Your task to perform on an android device: Open Google Maps Image 0: 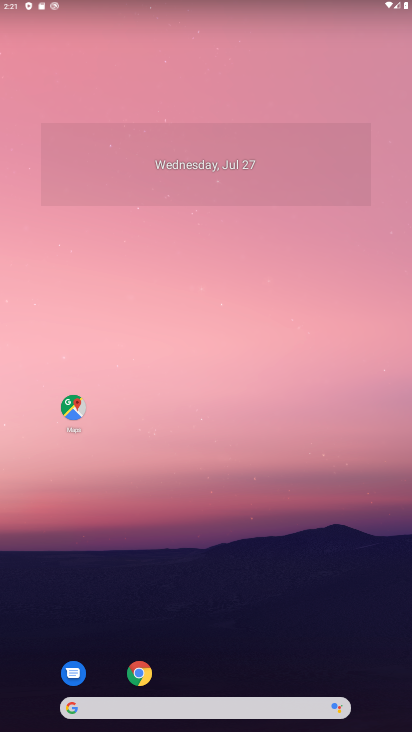
Step 0: drag from (241, 660) to (272, 244)
Your task to perform on an android device: Open Google Maps Image 1: 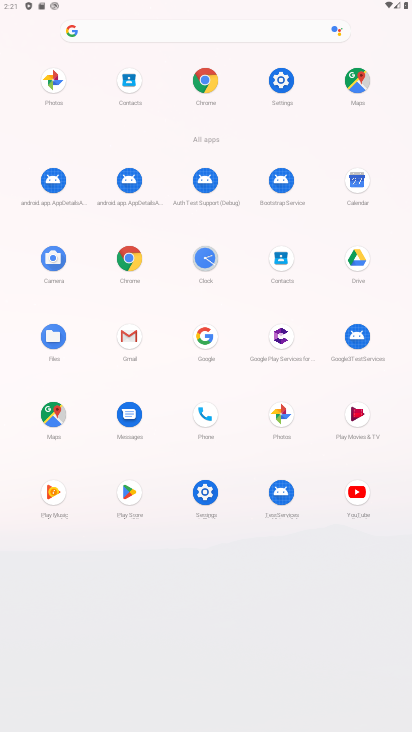
Step 1: click (357, 87)
Your task to perform on an android device: Open Google Maps Image 2: 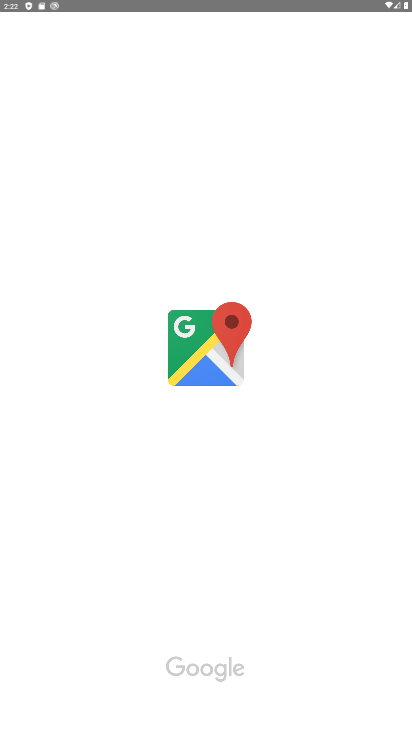
Step 2: press home button
Your task to perform on an android device: Open Google Maps Image 3: 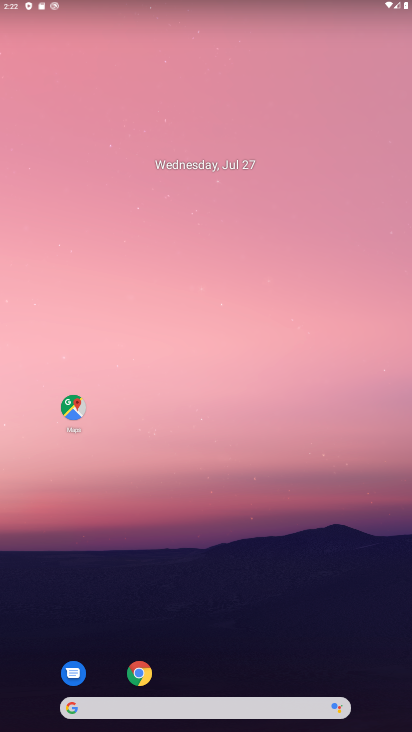
Step 3: drag from (179, 570) to (97, 100)
Your task to perform on an android device: Open Google Maps Image 4: 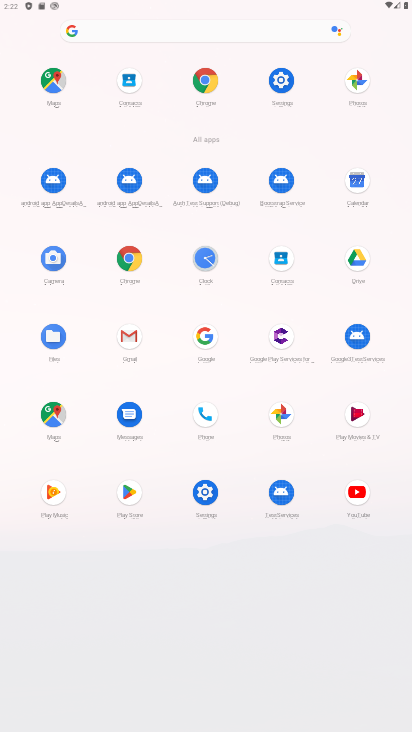
Step 4: click (53, 84)
Your task to perform on an android device: Open Google Maps Image 5: 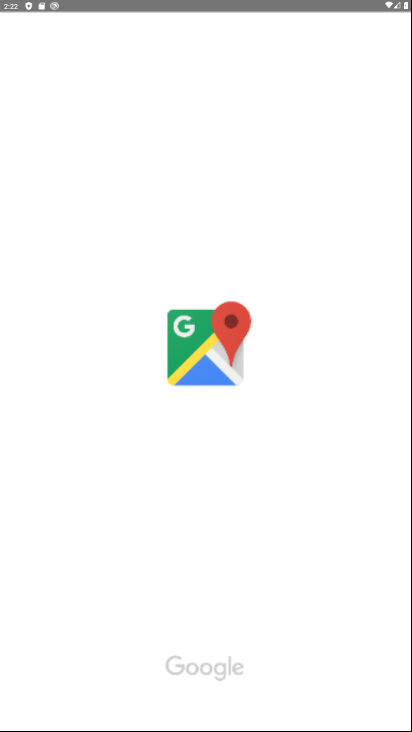
Step 5: task complete